Your task to perform on an android device: check storage Image 0: 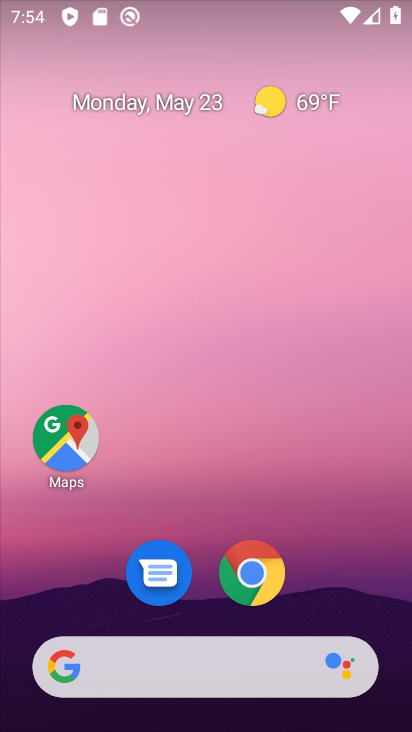
Step 0: drag from (205, 606) to (323, 246)
Your task to perform on an android device: check storage Image 1: 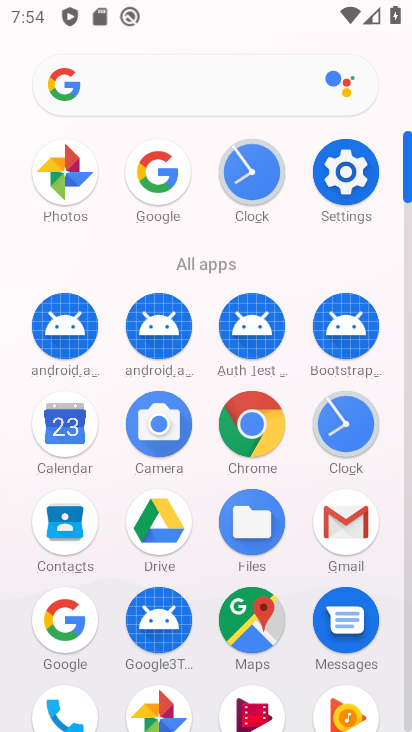
Step 1: click (362, 165)
Your task to perform on an android device: check storage Image 2: 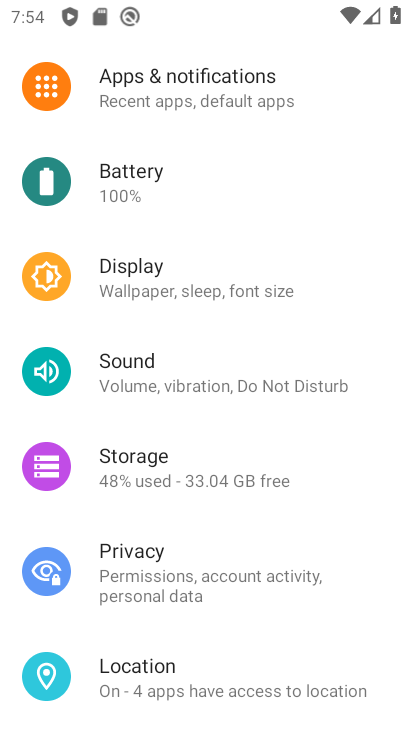
Step 2: click (157, 450)
Your task to perform on an android device: check storage Image 3: 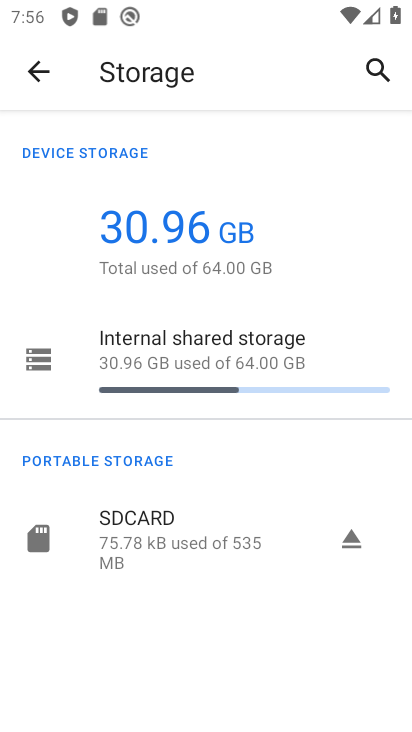
Step 3: task complete